Your task to perform on an android device: turn on priority inbox in the gmail app Image 0: 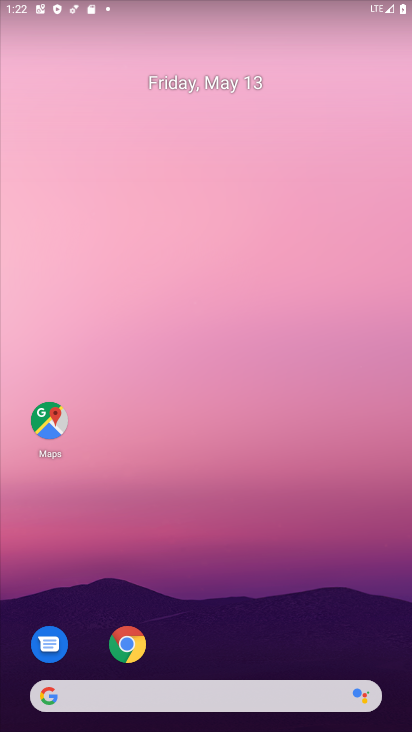
Step 0: drag from (360, 641) to (251, 35)
Your task to perform on an android device: turn on priority inbox in the gmail app Image 1: 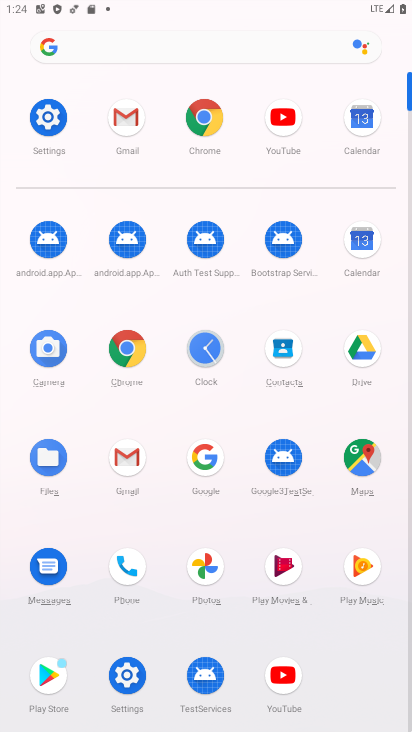
Step 1: click (132, 461)
Your task to perform on an android device: turn on priority inbox in the gmail app Image 2: 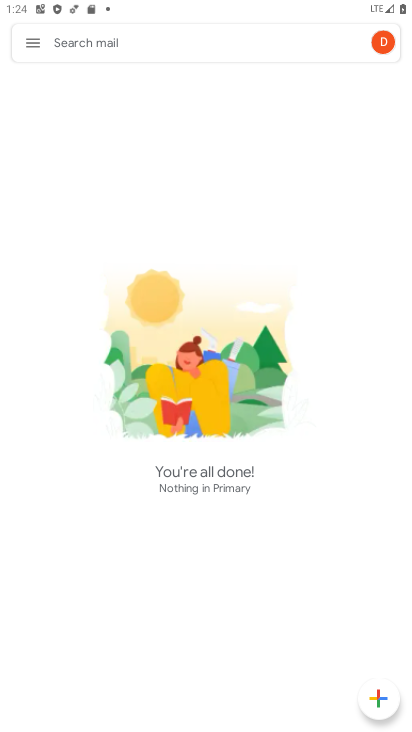
Step 2: click (24, 39)
Your task to perform on an android device: turn on priority inbox in the gmail app Image 3: 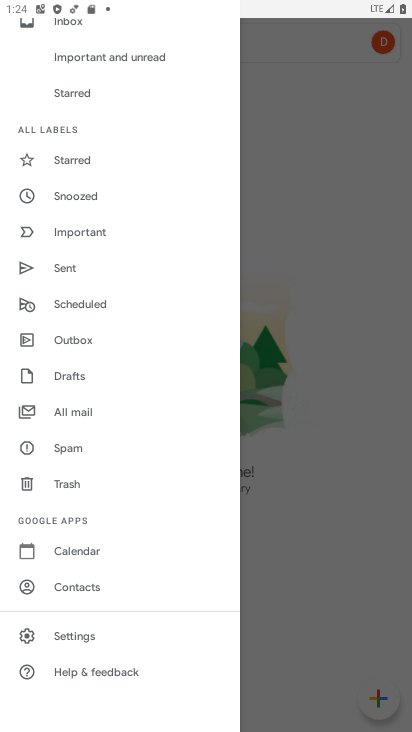
Step 3: click (96, 622)
Your task to perform on an android device: turn on priority inbox in the gmail app Image 4: 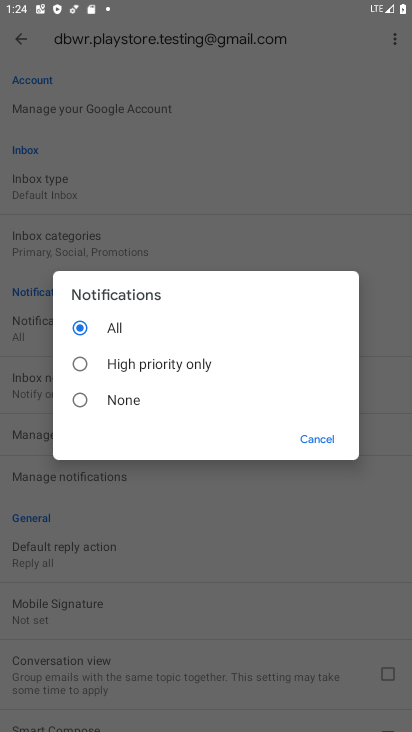
Step 4: click (310, 438)
Your task to perform on an android device: turn on priority inbox in the gmail app Image 5: 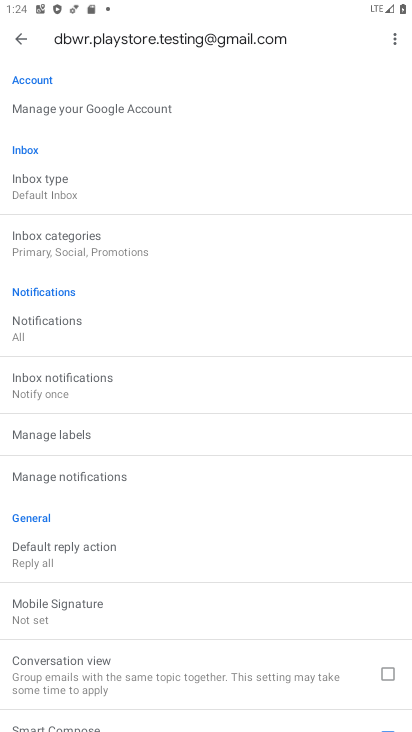
Step 5: click (88, 190)
Your task to perform on an android device: turn on priority inbox in the gmail app Image 6: 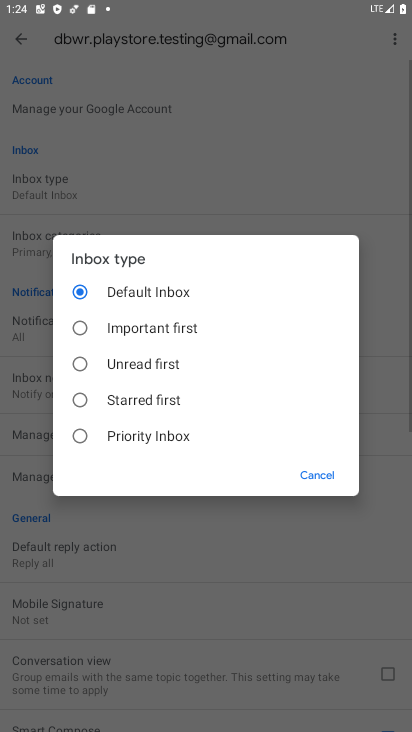
Step 6: click (139, 431)
Your task to perform on an android device: turn on priority inbox in the gmail app Image 7: 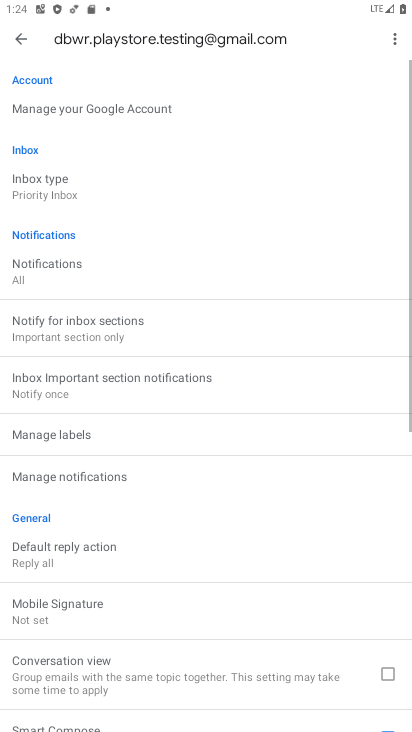
Step 7: task complete